Your task to perform on an android device: Go to Maps Image 0: 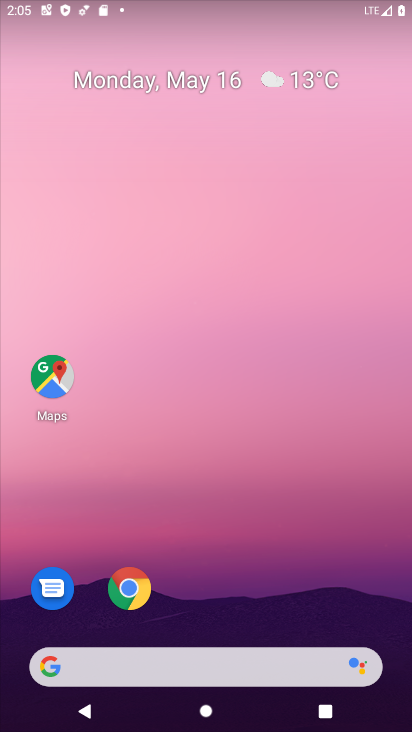
Step 0: click (60, 384)
Your task to perform on an android device: Go to Maps Image 1: 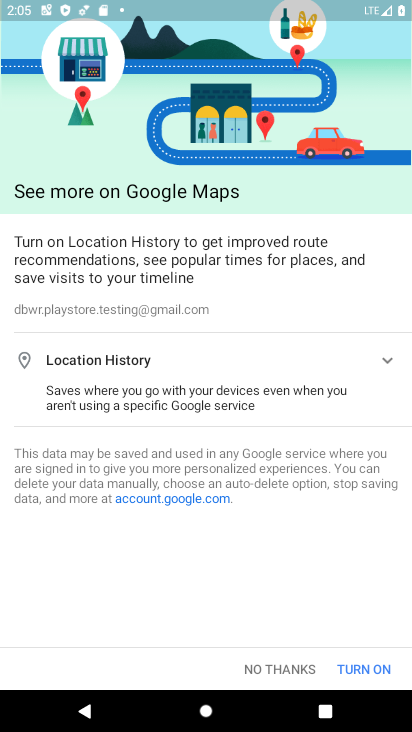
Step 1: click (287, 670)
Your task to perform on an android device: Go to Maps Image 2: 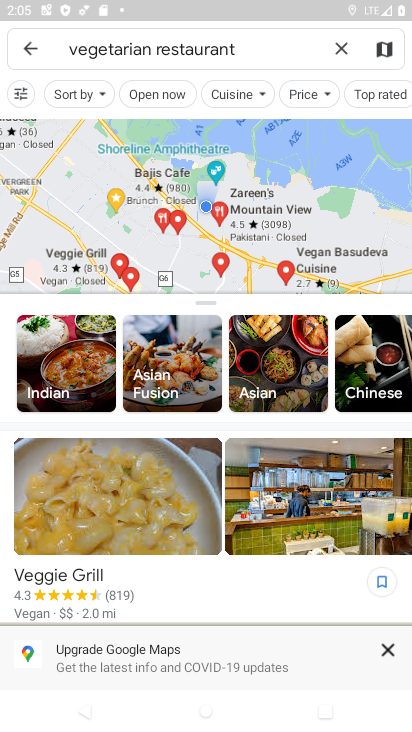
Step 2: task complete